Your task to perform on an android device: Is it going to rain this weekend? Image 0: 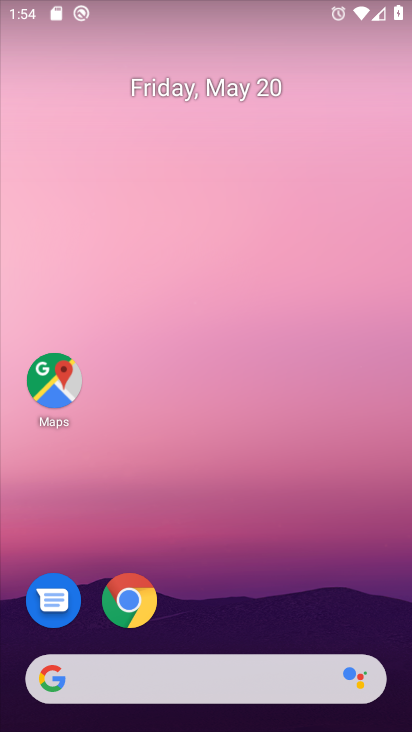
Step 0: click (224, 677)
Your task to perform on an android device: Is it going to rain this weekend? Image 1: 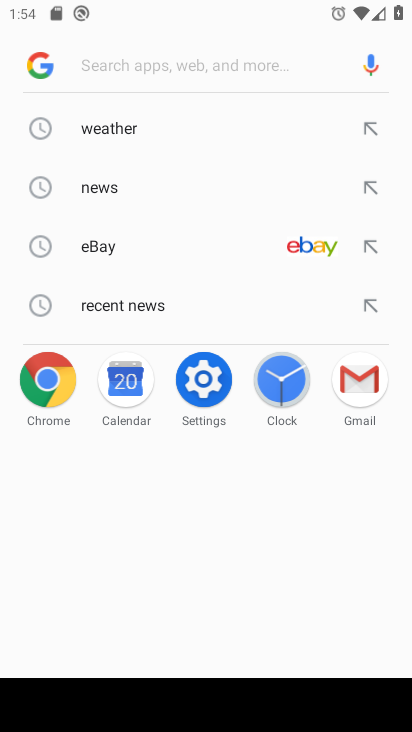
Step 1: click (100, 127)
Your task to perform on an android device: Is it going to rain this weekend? Image 2: 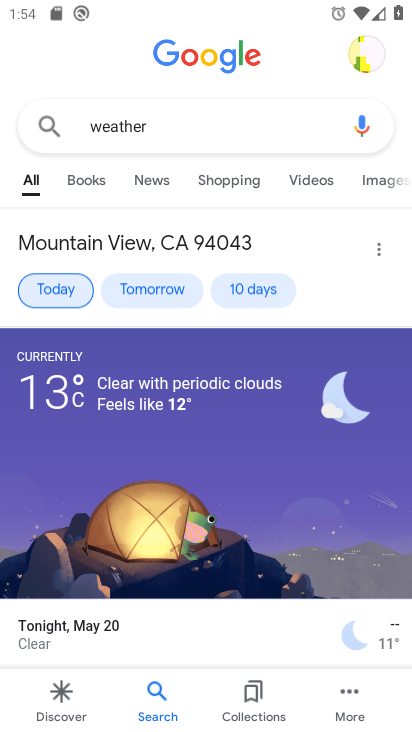
Step 2: drag from (193, 464) to (211, 314)
Your task to perform on an android device: Is it going to rain this weekend? Image 3: 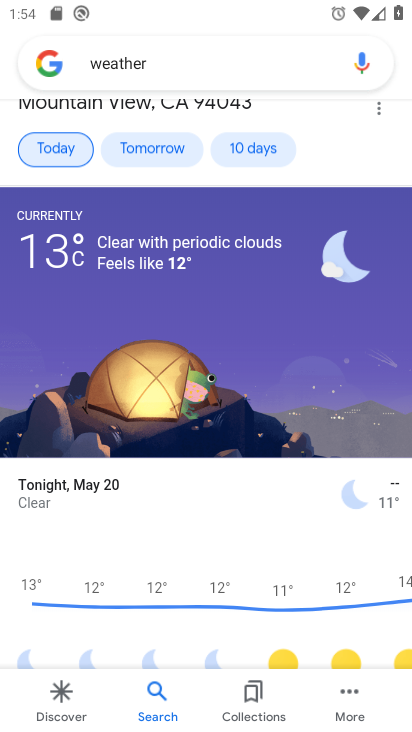
Step 3: click (260, 147)
Your task to perform on an android device: Is it going to rain this weekend? Image 4: 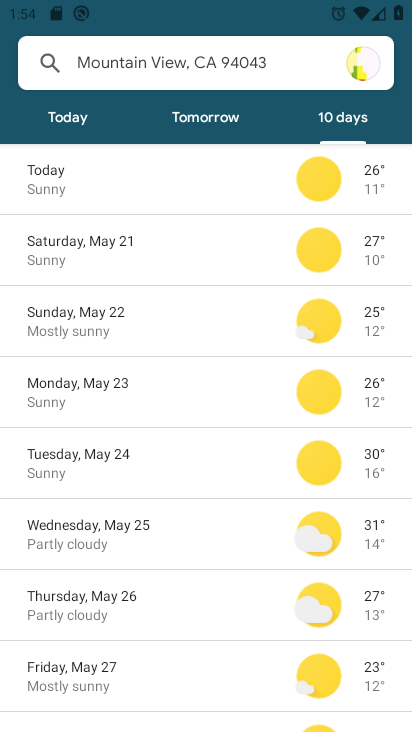
Step 4: task complete